Your task to perform on an android device: turn on airplane mode Image 0: 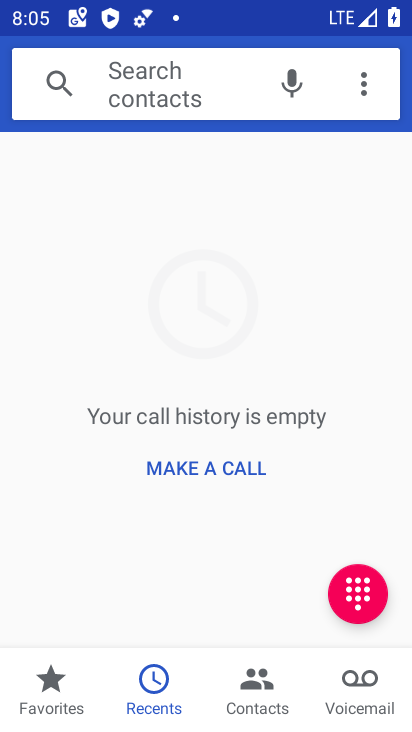
Step 0: press home button
Your task to perform on an android device: turn on airplane mode Image 1: 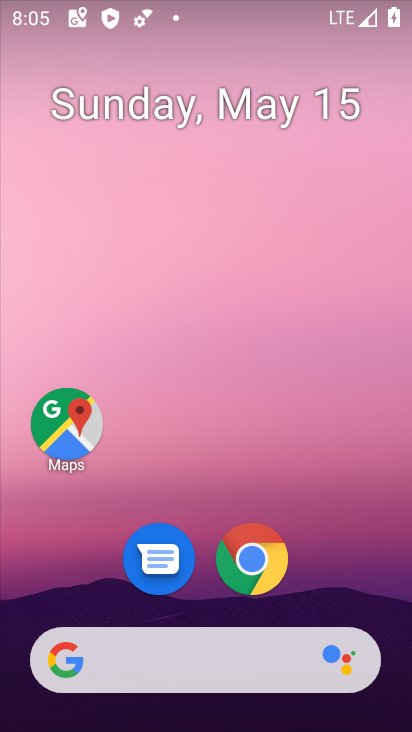
Step 1: drag from (328, 563) to (319, 216)
Your task to perform on an android device: turn on airplane mode Image 2: 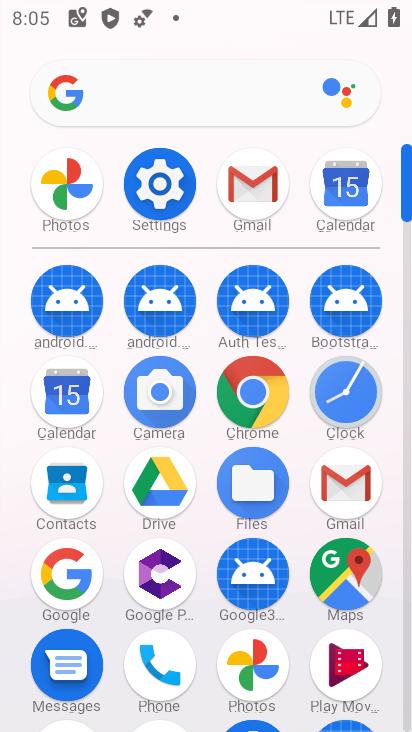
Step 2: click (147, 189)
Your task to perform on an android device: turn on airplane mode Image 3: 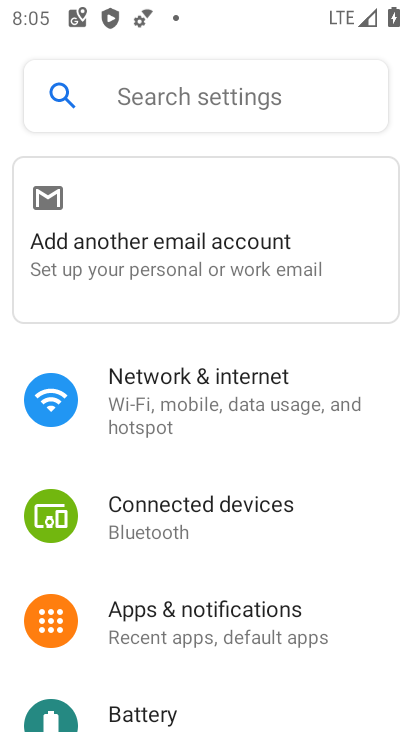
Step 3: click (178, 412)
Your task to perform on an android device: turn on airplane mode Image 4: 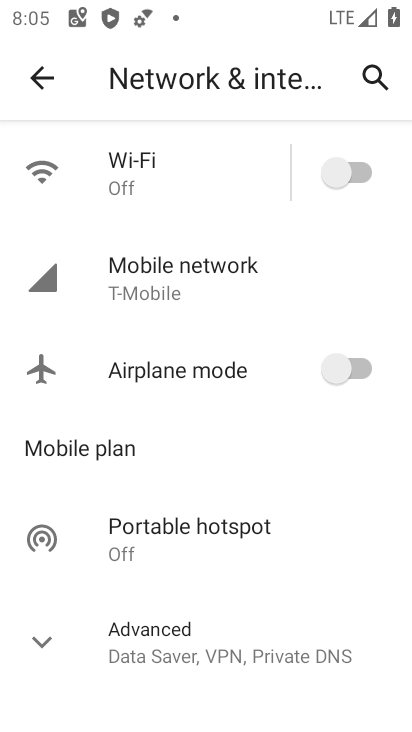
Step 4: click (322, 366)
Your task to perform on an android device: turn on airplane mode Image 5: 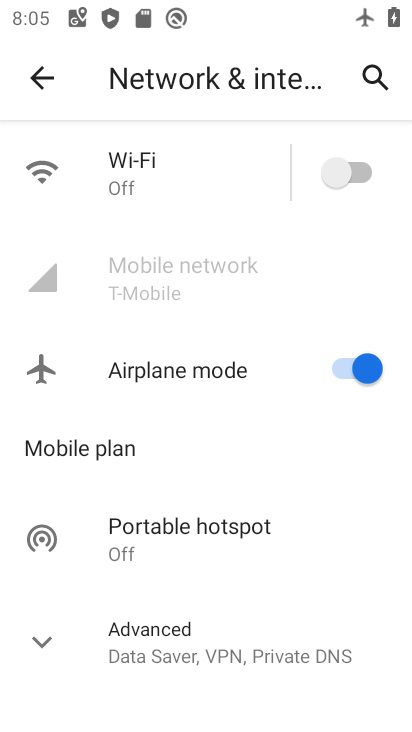
Step 5: task complete